Your task to perform on an android device: Open calendar and show me the fourth week of next month Image 0: 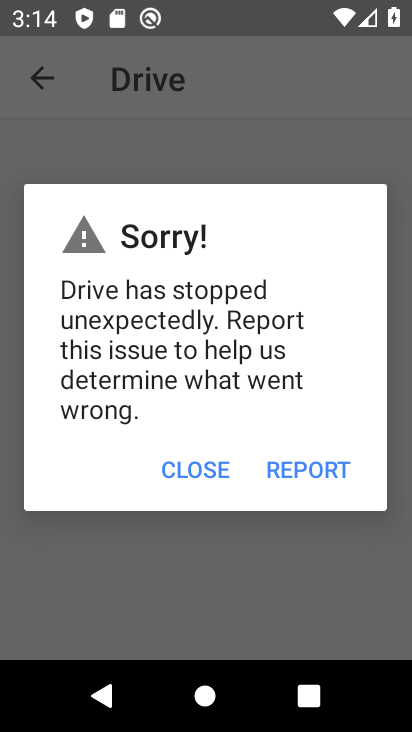
Step 0: press home button
Your task to perform on an android device: Open calendar and show me the fourth week of next month Image 1: 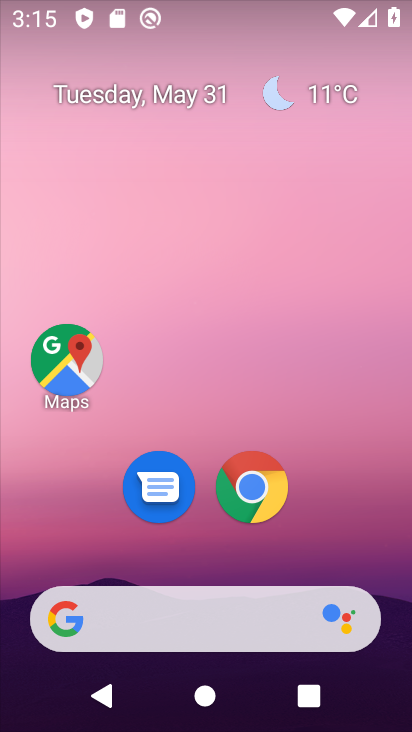
Step 1: drag from (335, 537) to (256, 92)
Your task to perform on an android device: Open calendar and show me the fourth week of next month Image 2: 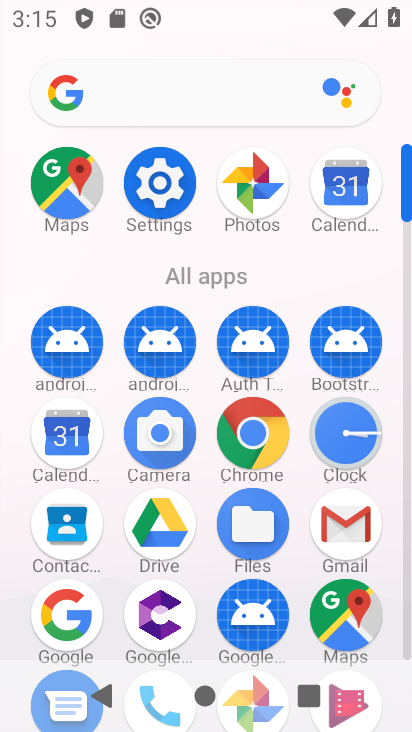
Step 2: click (341, 187)
Your task to perform on an android device: Open calendar and show me the fourth week of next month Image 3: 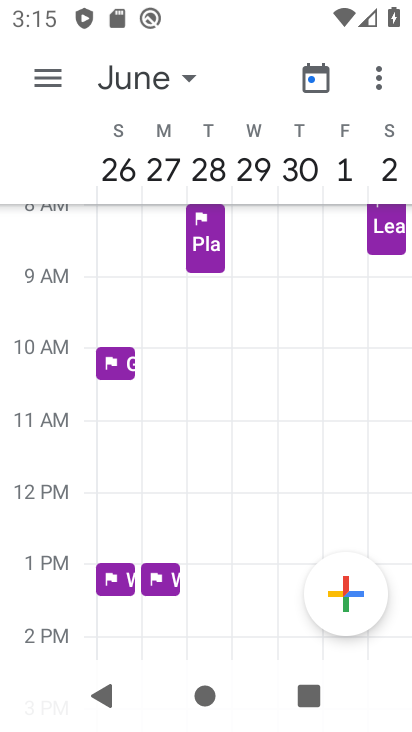
Step 3: click (313, 83)
Your task to perform on an android device: Open calendar and show me the fourth week of next month Image 4: 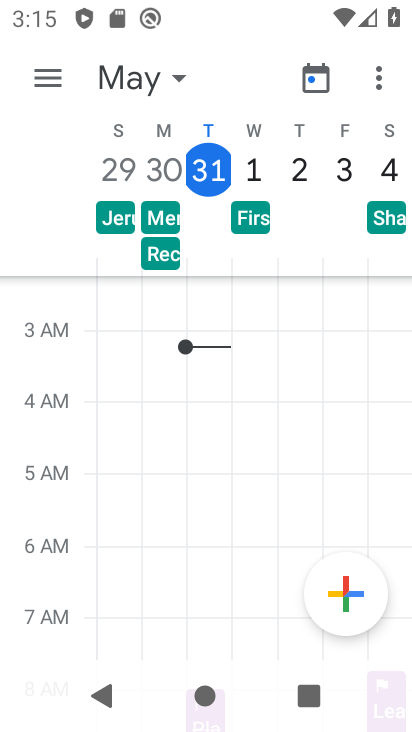
Step 4: click (181, 76)
Your task to perform on an android device: Open calendar and show me the fourth week of next month Image 5: 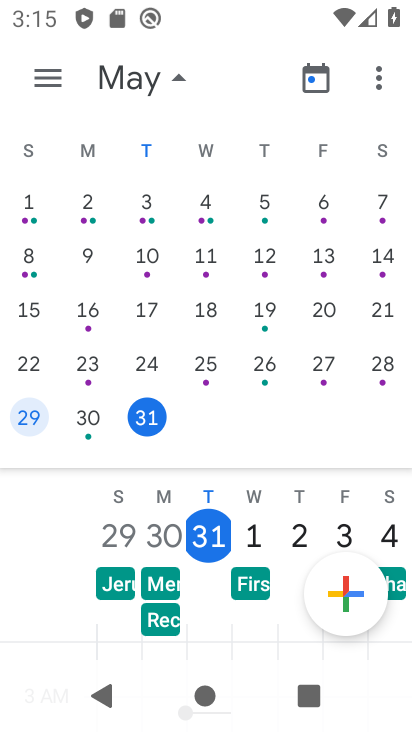
Step 5: drag from (365, 333) to (84, 322)
Your task to perform on an android device: Open calendar and show me the fourth week of next month Image 6: 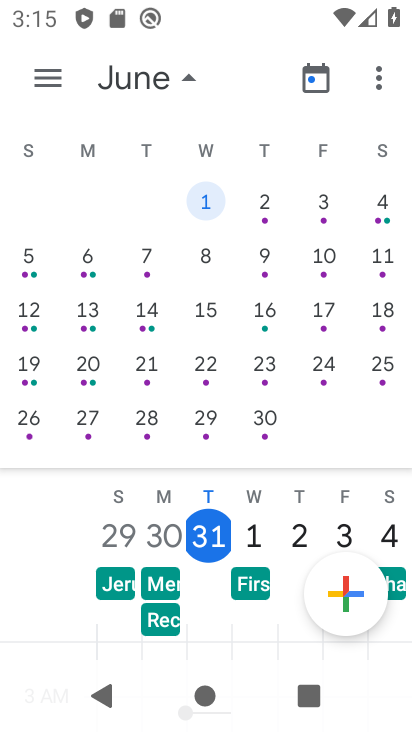
Step 6: click (91, 413)
Your task to perform on an android device: Open calendar and show me the fourth week of next month Image 7: 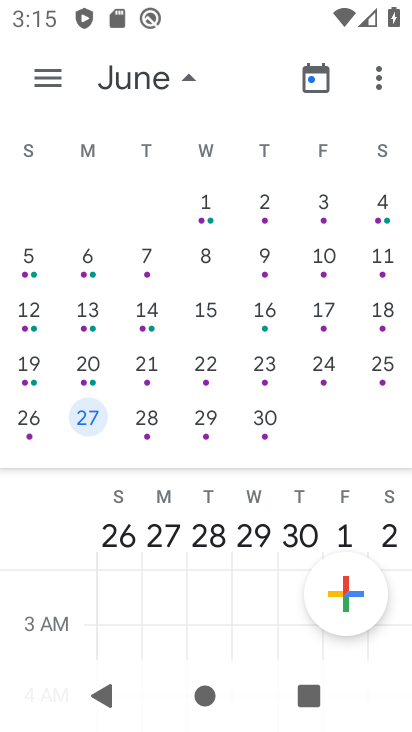
Step 7: click (54, 73)
Your task to perform on an android device: Open calendar and show me the fourth week of next month Image 8: 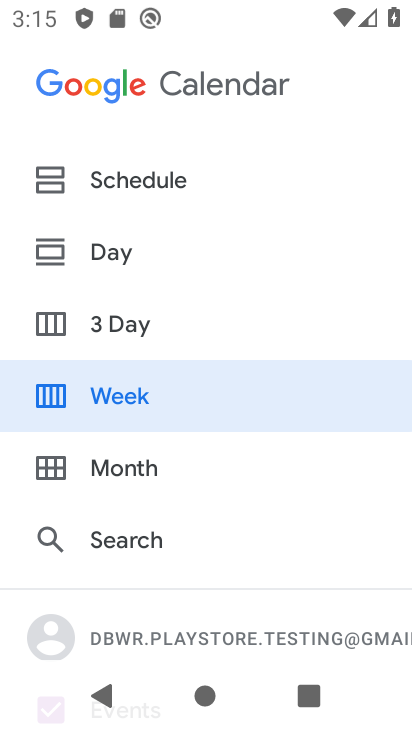
Step 8: click (121, 400)
Your task to perform on an android device: Open calendar and show me the fourth week of next month Image 9: 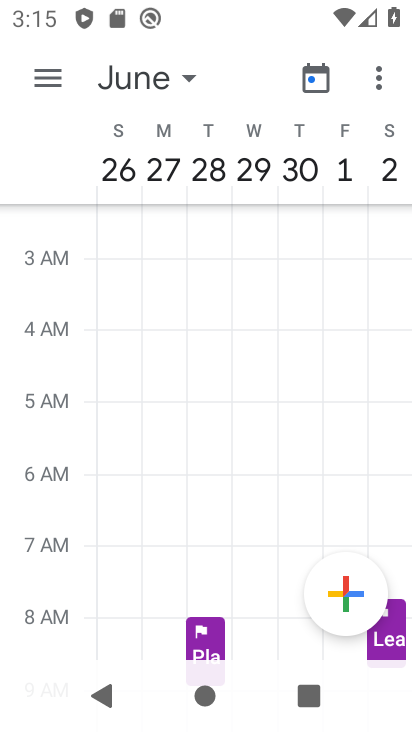
Step 9: task complete